Your task to perform on an android device: open sync settings in chrome Image 0: 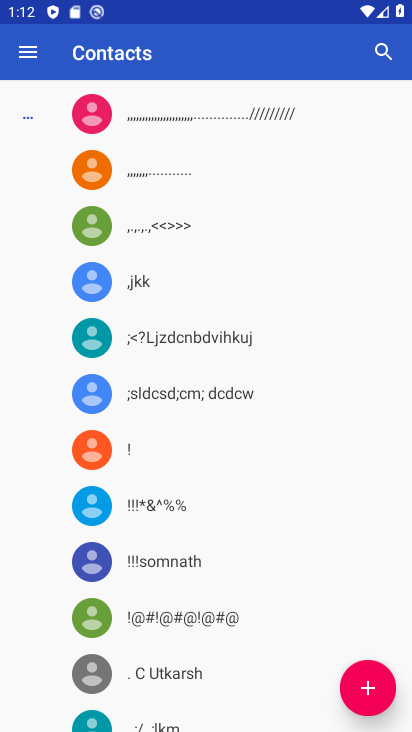
Step 0: press home button
Your task to perform on an android device: open sync settings in chrome Image 1: 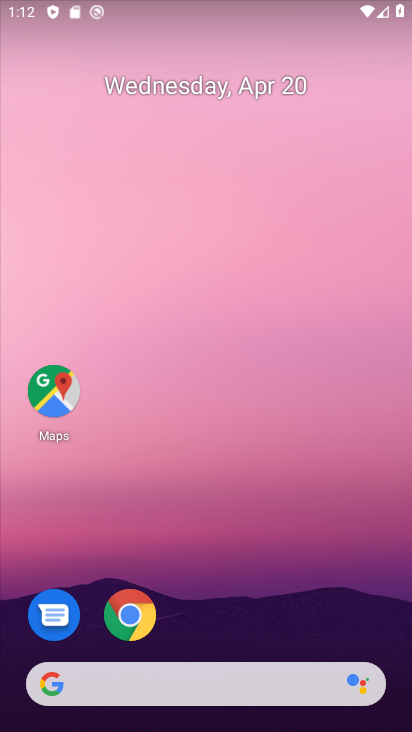
Step 1: drag from (223, 557) to (247, 48)
Your task to perform on an android device: open sync settings in chrome Image 2: 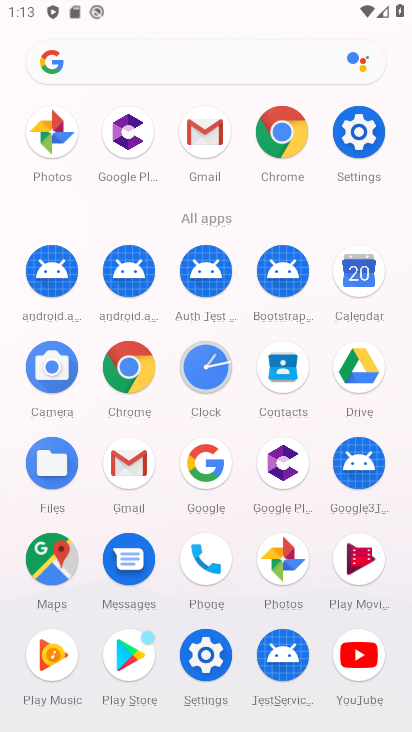
Step 2: click (266, 153)
Your task to perform on an android device: open sync settings in chrome Image 3: 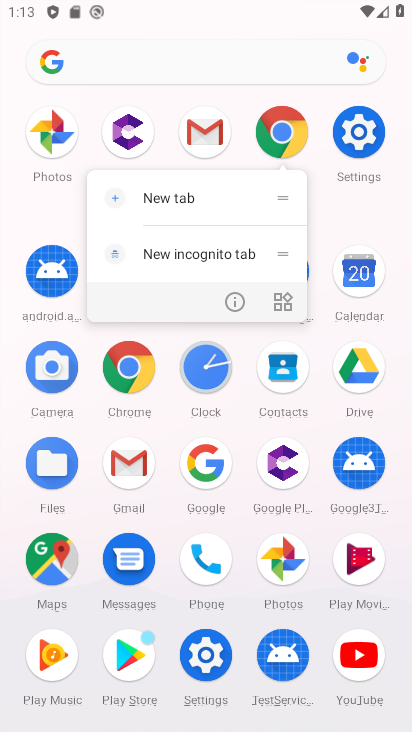
Step 3: click (287, 133)
Your task to perform on an android device: open sync settings in chrome Image 4: 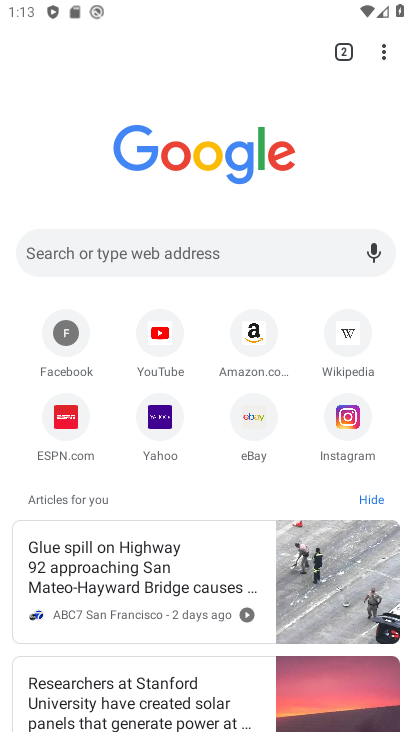
Step 4: click (382, 53)
Your task to perform on an android device: open sync settings in chrome Image 5: 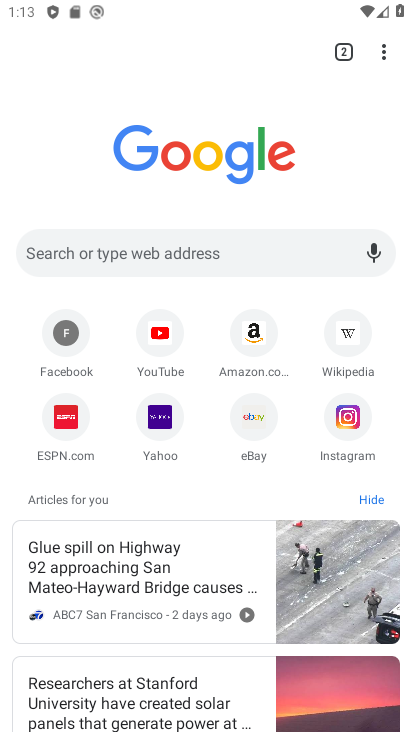
Step 5: click (383, 53)
Your task to perform on an android device: open sync settings in chrome Image 6: 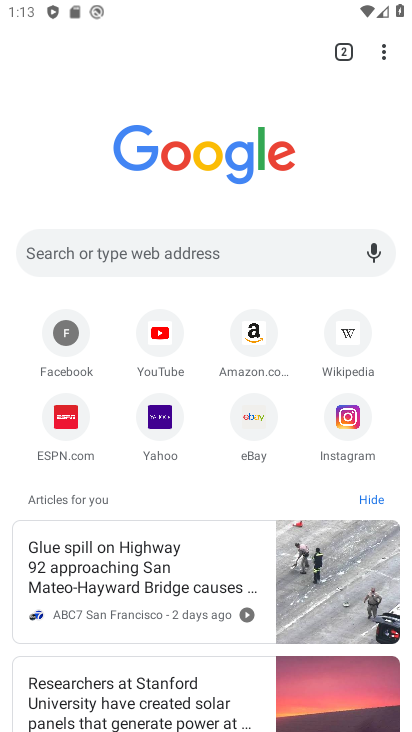
Step 6: click (387, 41)
Your task to perform on an android device: open sync settings in chrome Image 7: 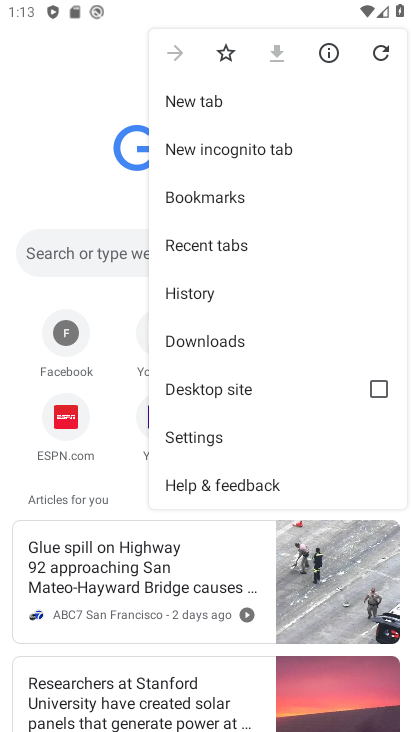
Step 7: click (225, 449)
Your task to perform on an android device: open sync settings in chrome Image 8: 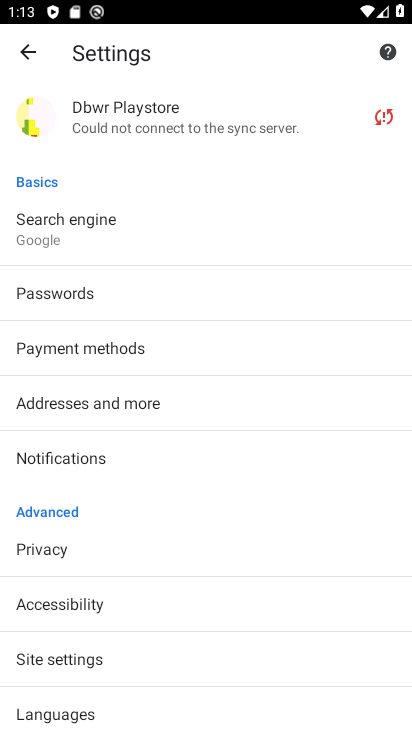
Step 8: click (126, 129)
Your task to perform on an android device: open sync settings in chrome Image 9: 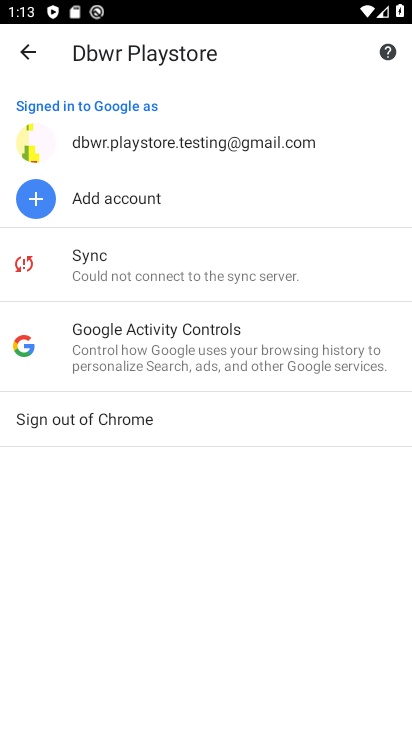
Step 9: click (151, 243)
Your task to perform on an android device: open sync settings in chrome Image 10: 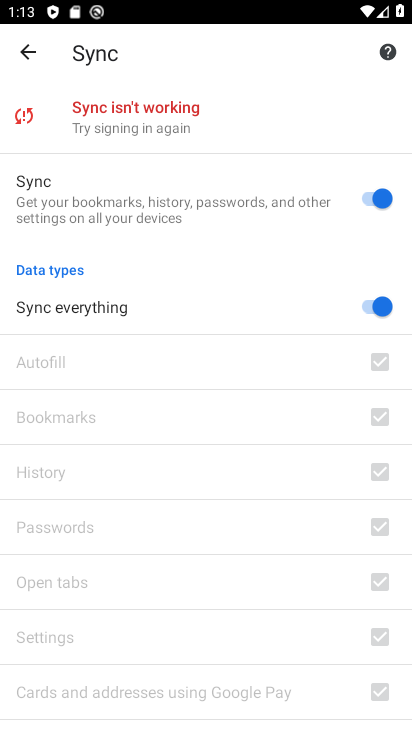
Step 10: task complete